Your task to perform on an android device: change the upload size in google photos Image 0: 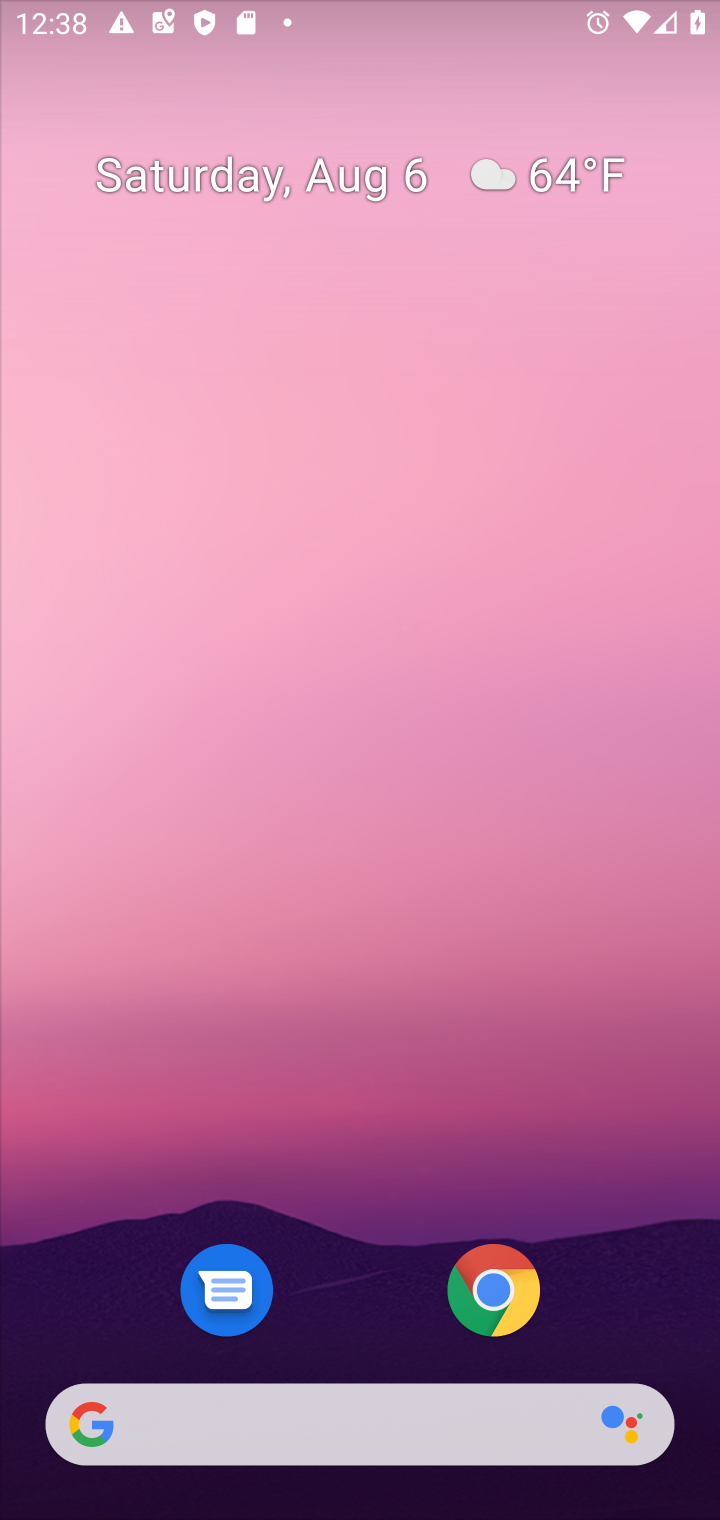
Step 0: press home button
Your task to perform on an android device: change the upload size in google photos Image 1: 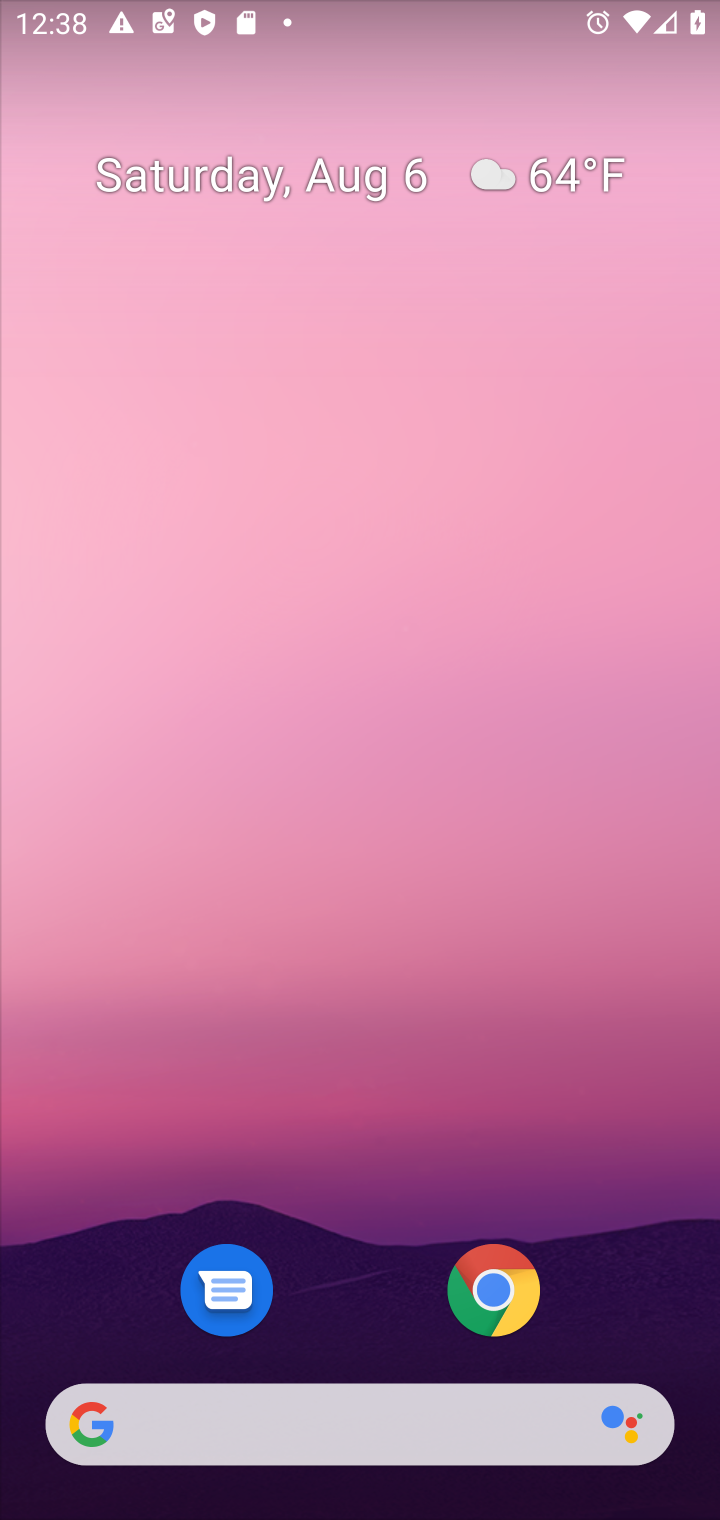
Step 1: drag from (375, 1345) to (434, 333)
Your task to perform on an android device: change the upload size in google photos Image 2: 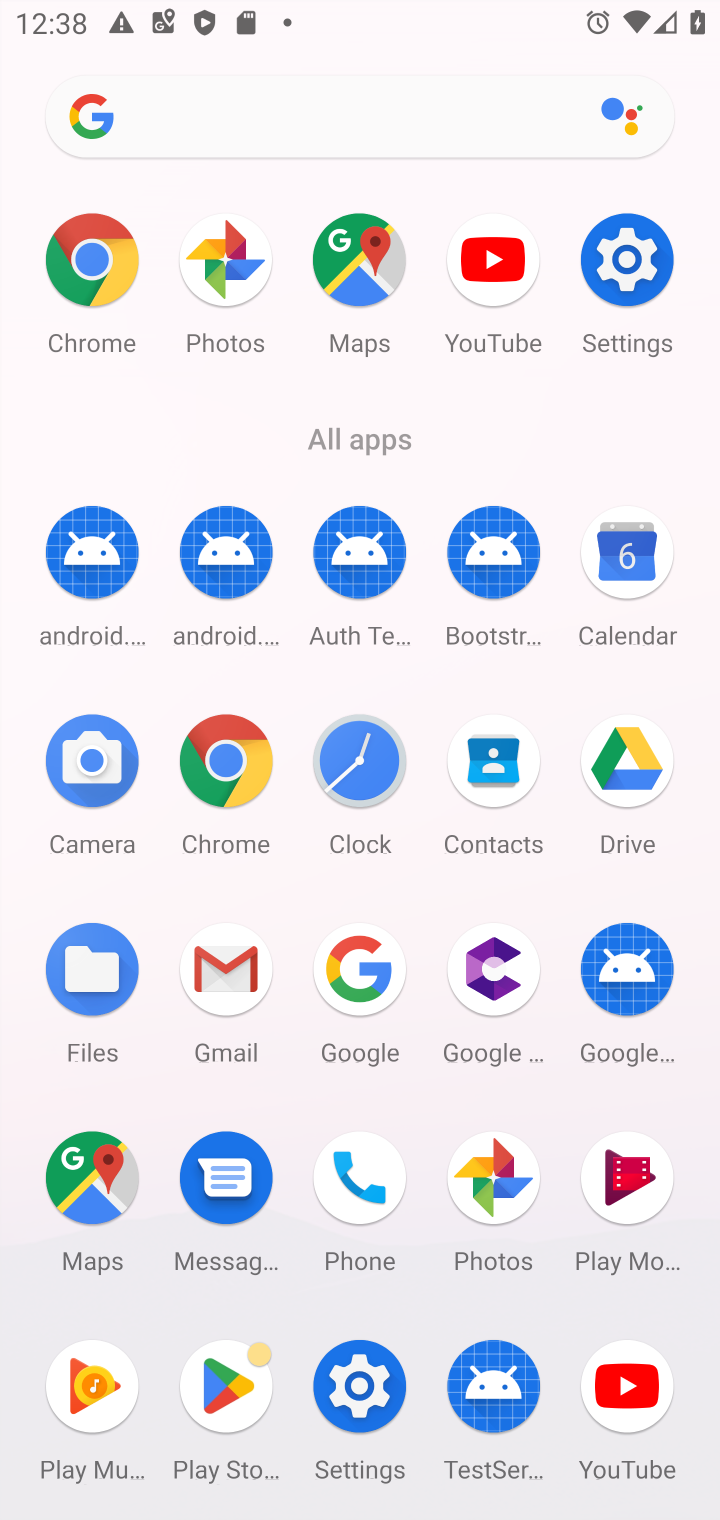
Step 2: click (494, 1172)
Your task to perform on an android device: change the upload size in google photos Image 3: 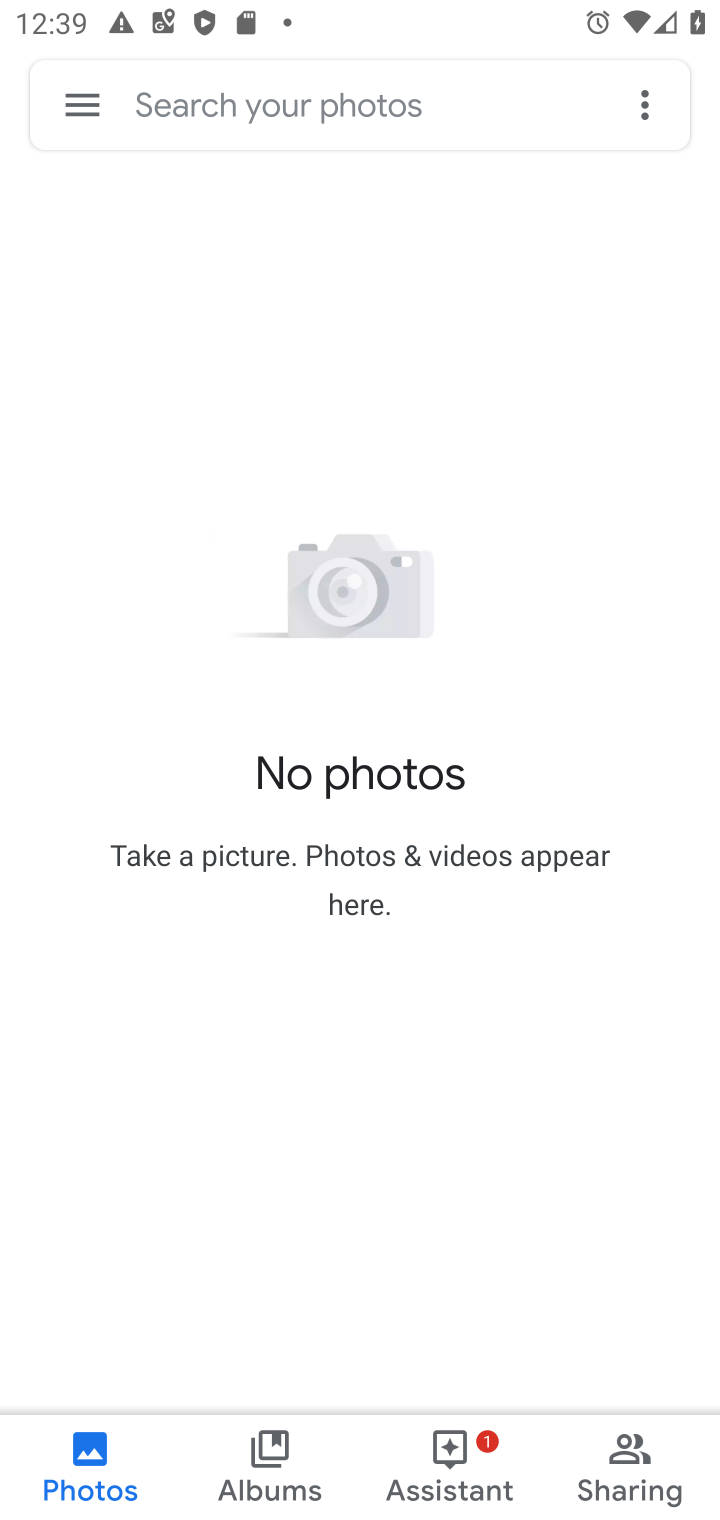
Step 3: click (81, 90)
Your task to perform on an android device: change the upload size in google photos Image 4: 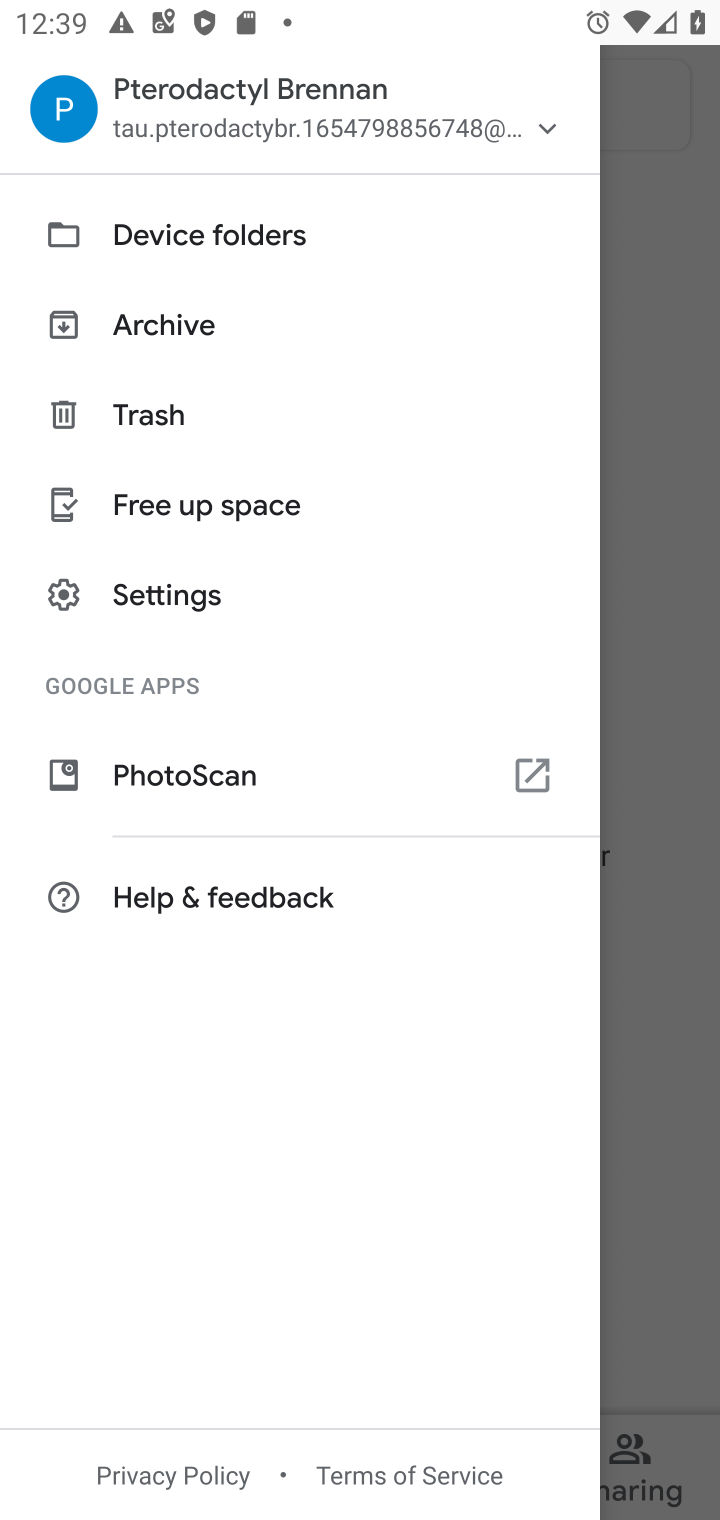
Step 4: click (119, 596)
Your task to perform on an android device: change the upload size in google photos Image 5: 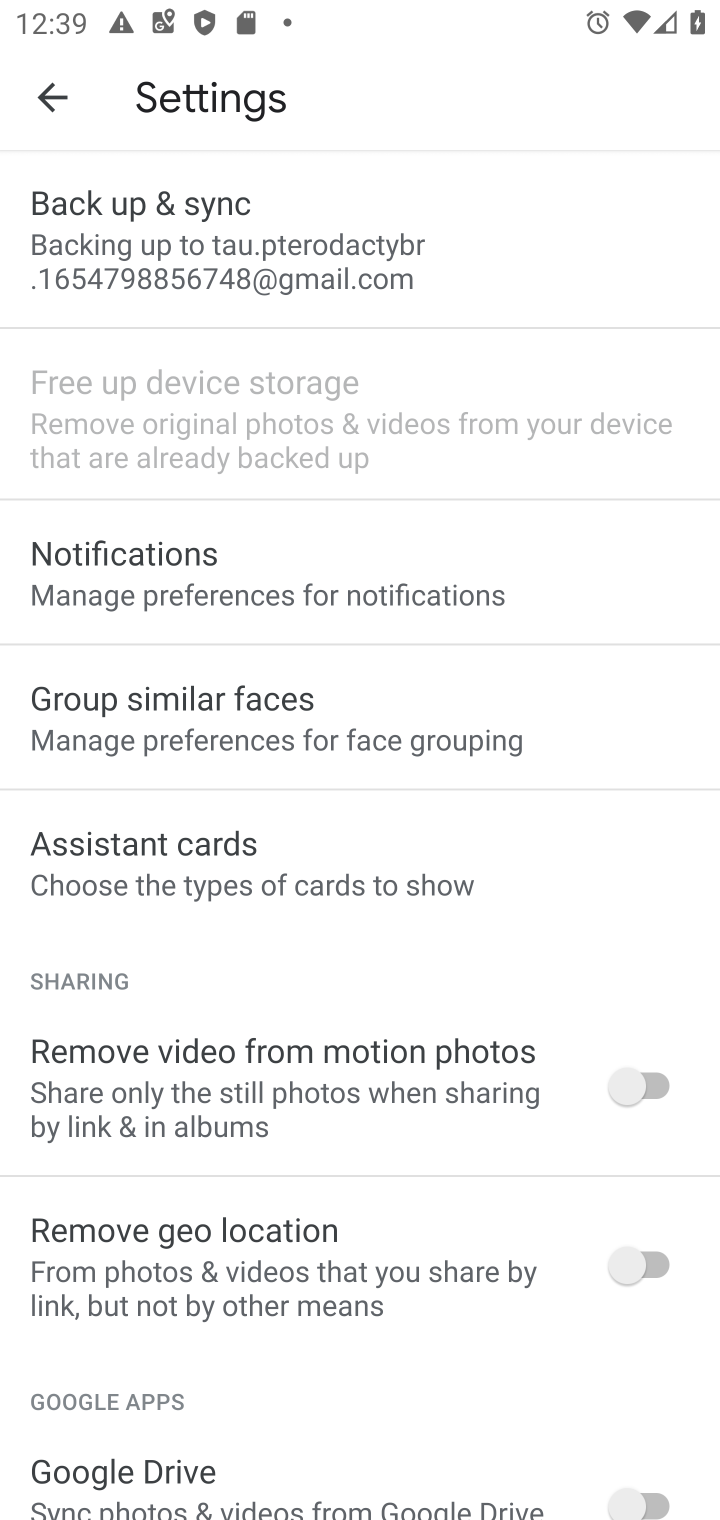
Step 5: click (247, 229)
Your task to perform on an android device: change the upload size in google photos Image 6: 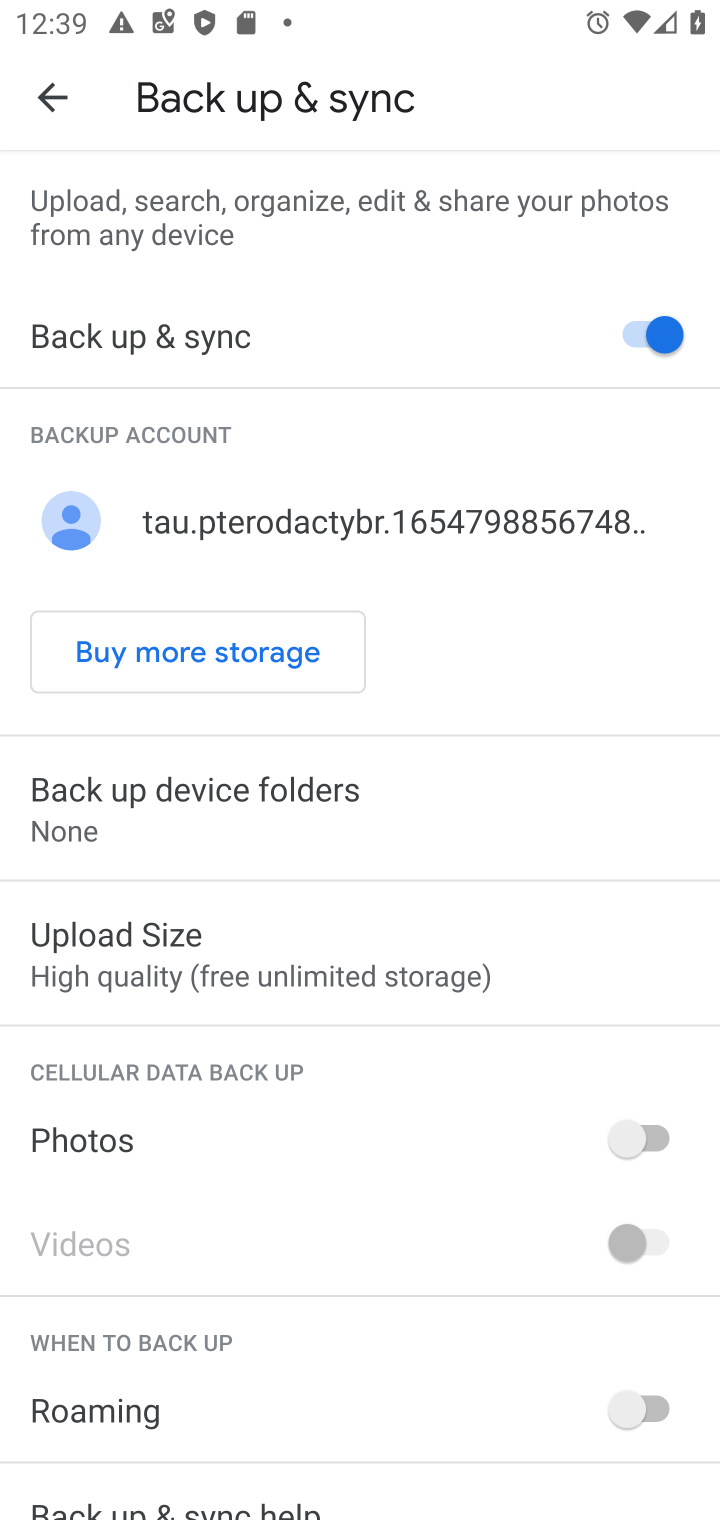
Step 6: click (191, 953)
Your task to perform on an android device: change the upload size in google photos Image 7: 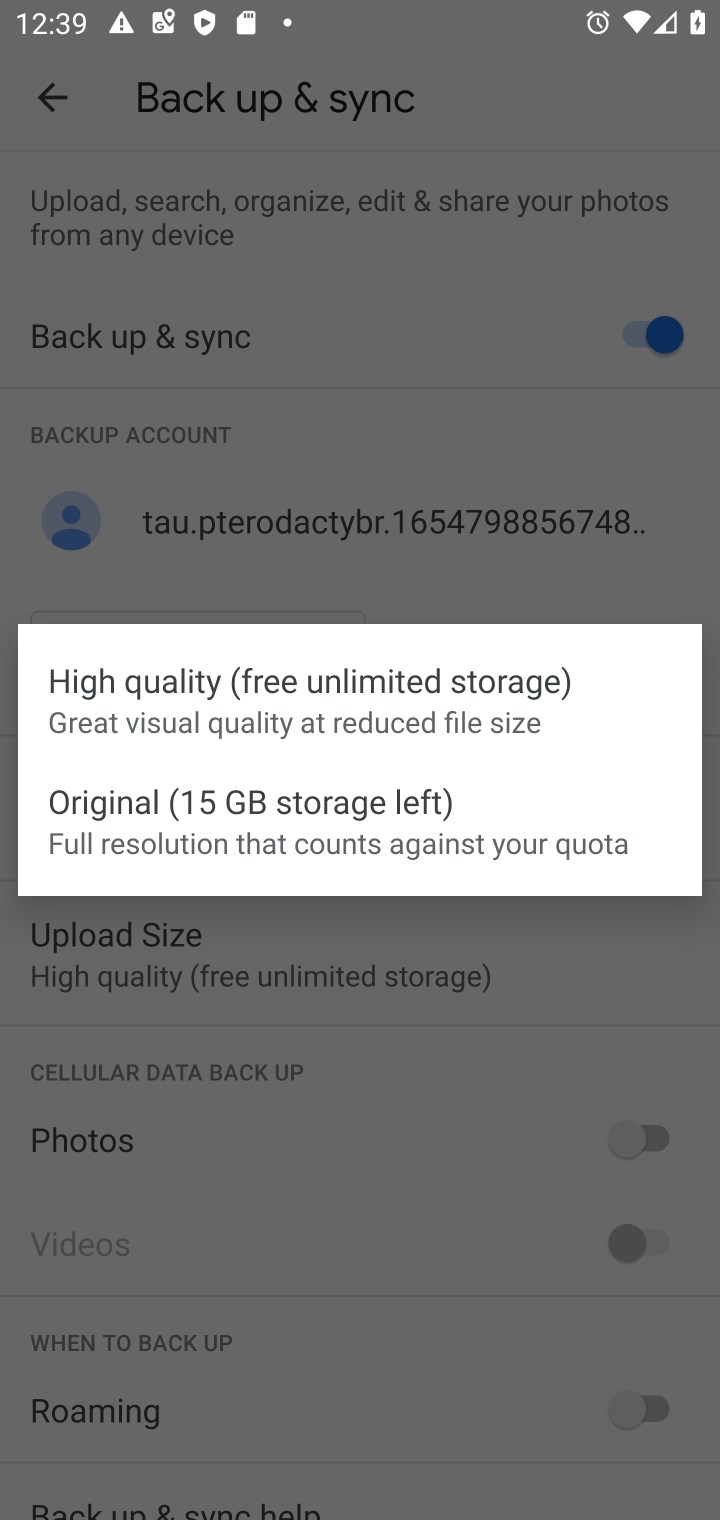
Step 7: click (193, 826)
Your task to perform on an android device: change the upload size in google photos Image 8: 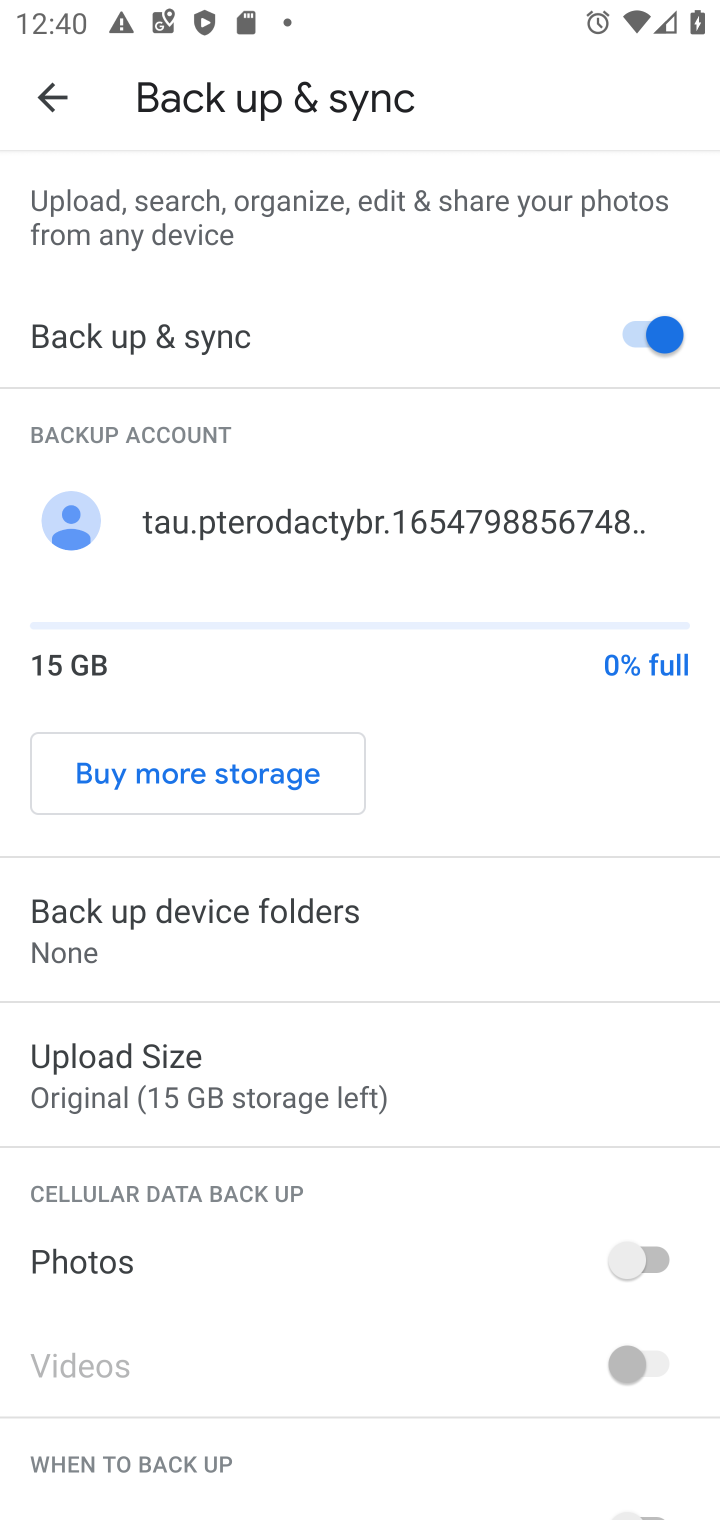
Step 8: task complete